Your task to perform on an android device: Open Google Chrome and click the shortcut for Amazon.com Image 0: 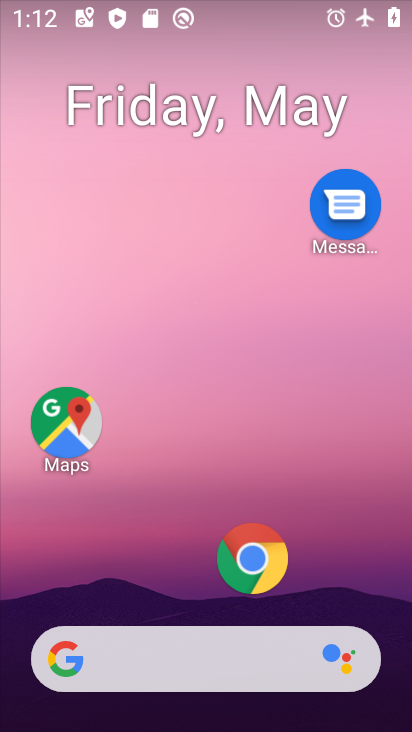
Step 0: drag from (221, 616) to (257, 37)
Your task to perform on an android device: Open Google Chrome and click the shortcut for Amazon.com Image 1: 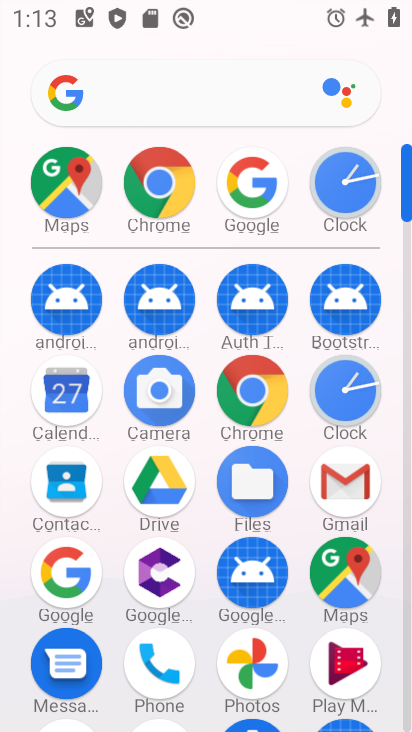
Step 1: click (260, 412)
Your task to perform on an android device: Open Google Chrome and click the shortcut for Amazon.com Image 2: 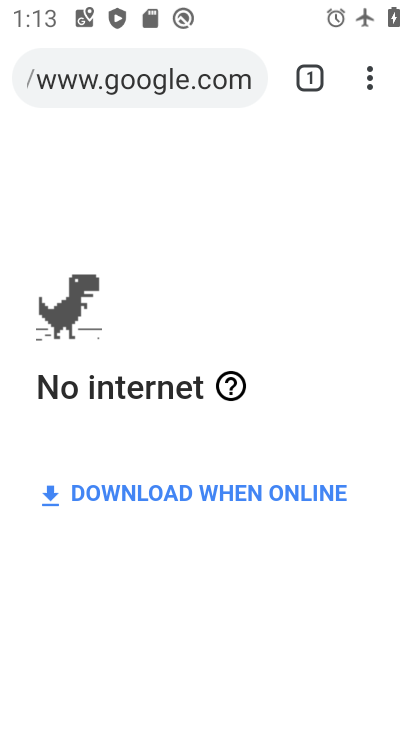
Step 2: click (193, 85)
Your task to perform on an android device: Open Google Chrome and click the shortcut for Amazon.com Image 3: 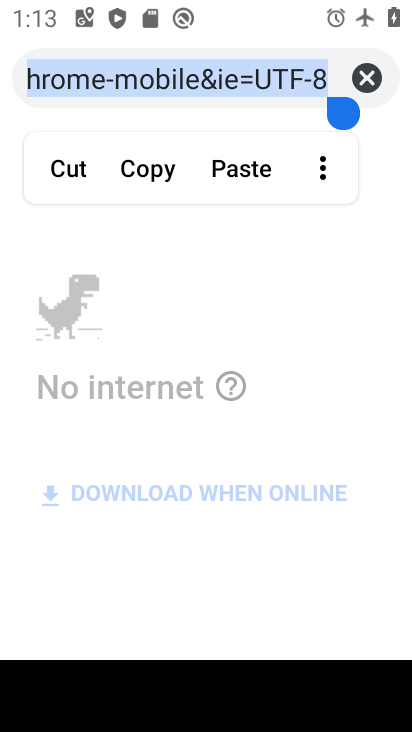
Step 3: type "amazon"
Your task to perform on an android device: Open Google Chrome and click the shortcut for Amazon.com Image 4: 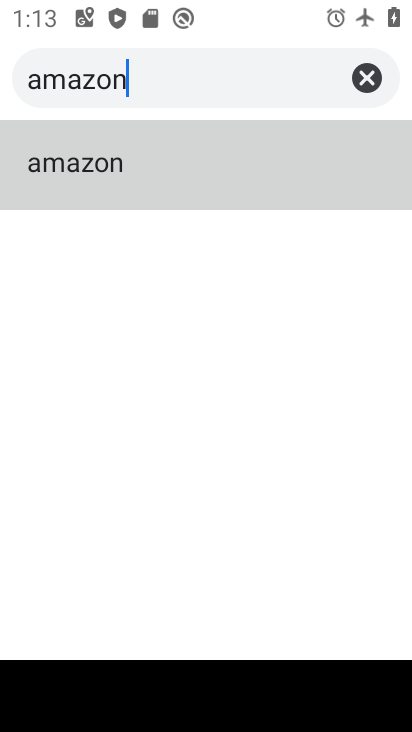
Step 4: click (332, 186)
Your task to perform on an android device: Open Google Chrome and click the shortcut for Amazon.com Image 5: 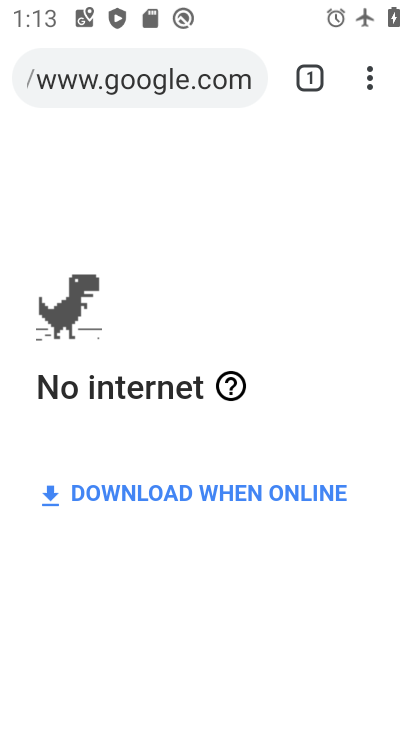
Step 5: drag from (214, 77) to (285, 492)
Your task to perform on an android device: Open Google Chrome and click the shortcut for Amazon.com Image 6: 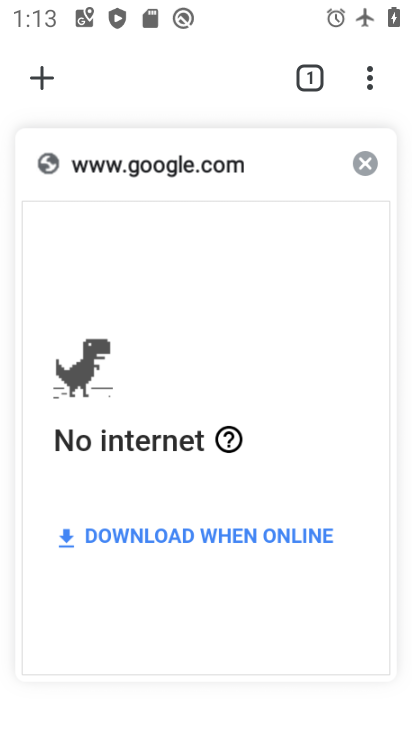
Step 6: click (44, 74)
Your task to perform on an android device: Open Google Chrome and click the shortcut for Amazon.com Image 7: 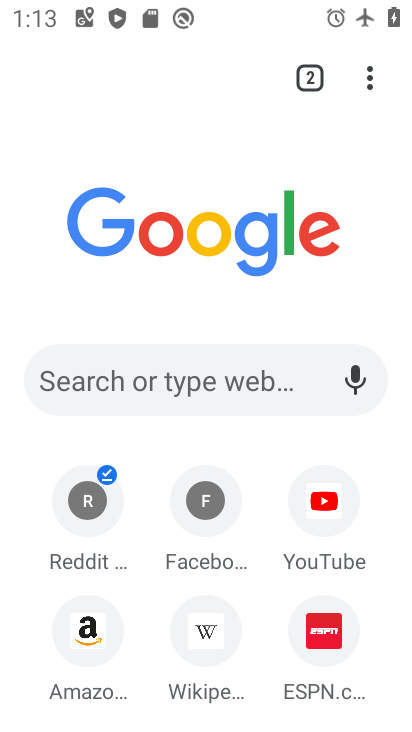
Step 7: click (96, 647)
Your task to perform on an android device: Open Google Chrome and click the shortcut for Amazon.com Image 8: 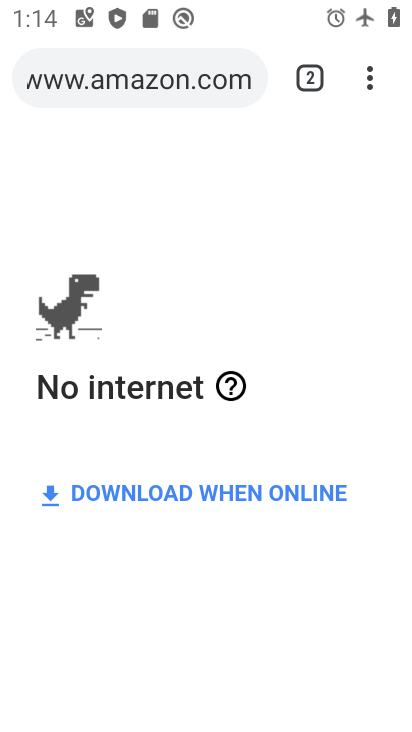
Step 8: task complete